Your task to perform on an android device: Clear the shopping cart on target. Search for bose soundsport free on target, select the first entry, and add it to the cart. Image 0: 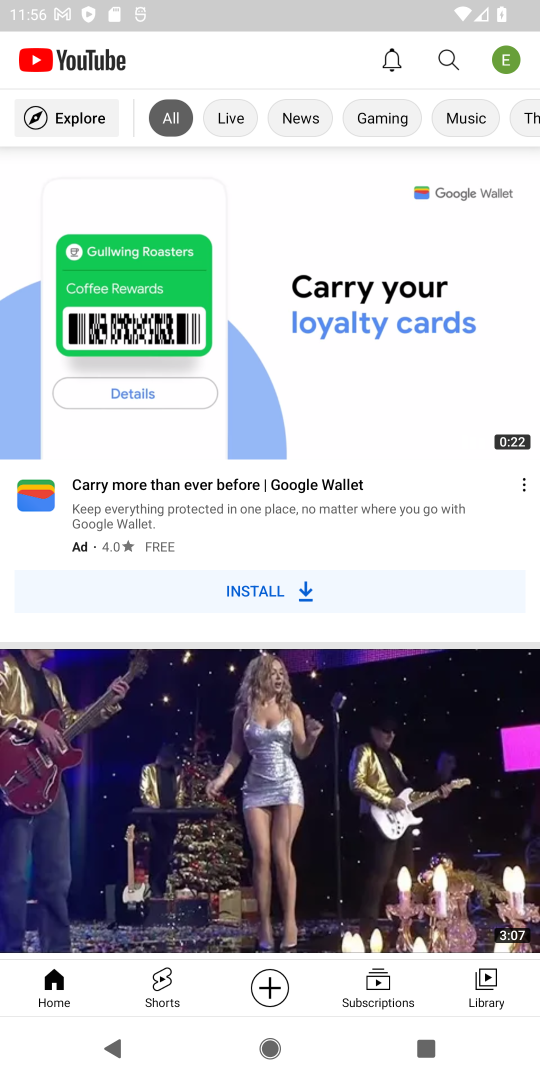
Step 0: press home button
Your task to perform on an android device: Clear the shopping cart on target. Search for bose soundsport free on target, select the first entry, and add it to the cart. Image 1: 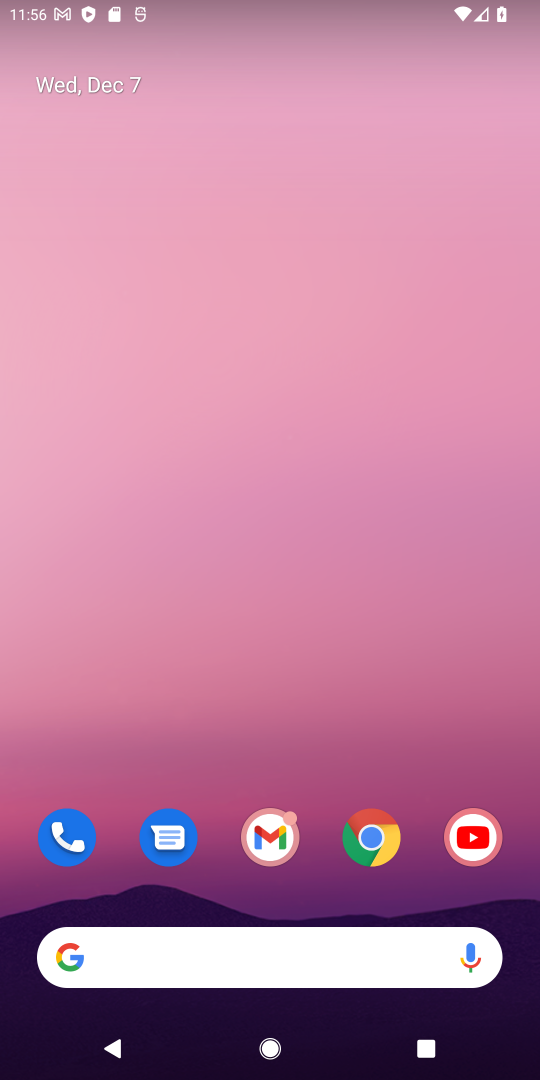
Step 1: click (364, 849)
Your task to perform on an android device: Clear the shopping cart on target. Search for bose soundsport free on target, select the first entry, and add it to the cart. Image 2: 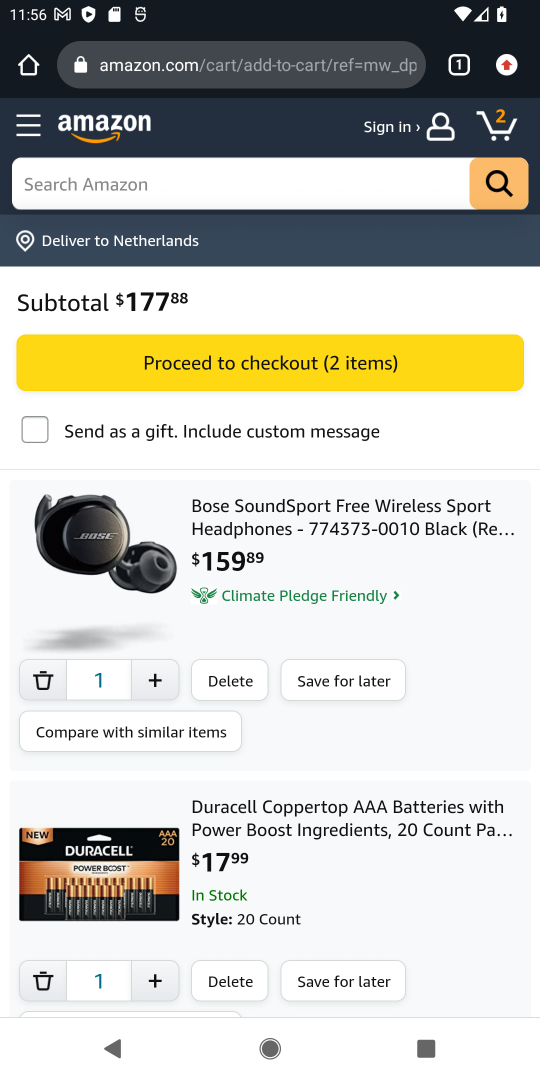
Step 2: click (212, 65)
Your task to perform on an android device: Clear the shopping cart on target. Search for bose soundsport free on target, select the first entry, and add it to the cart. Image 3: 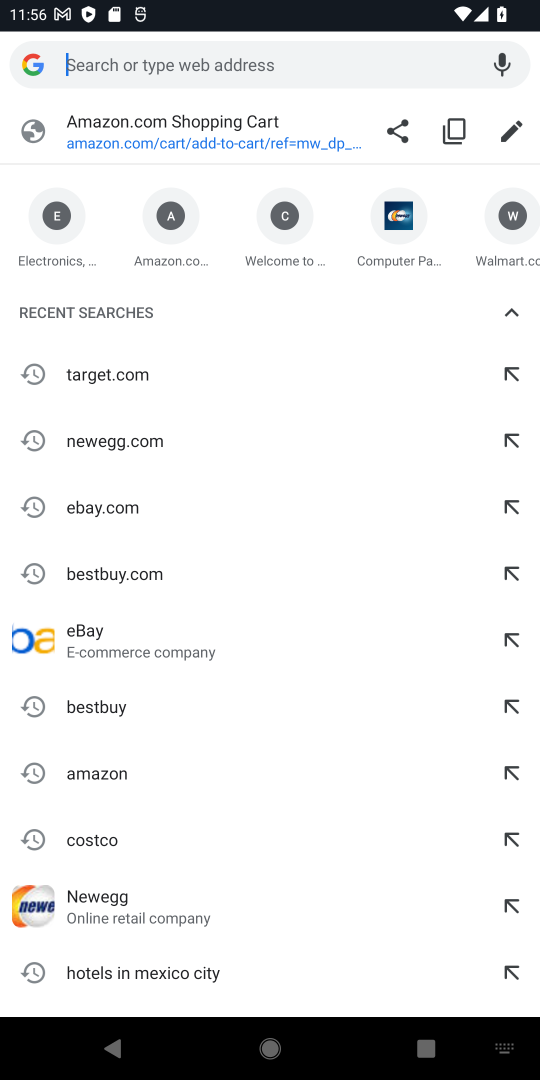
Step 3: type "target"
Your task to perform on an android device: Clear the shopping cart on target. Search for bose soundsport free on target, select the first entry, and add it to the cart. Image 4: 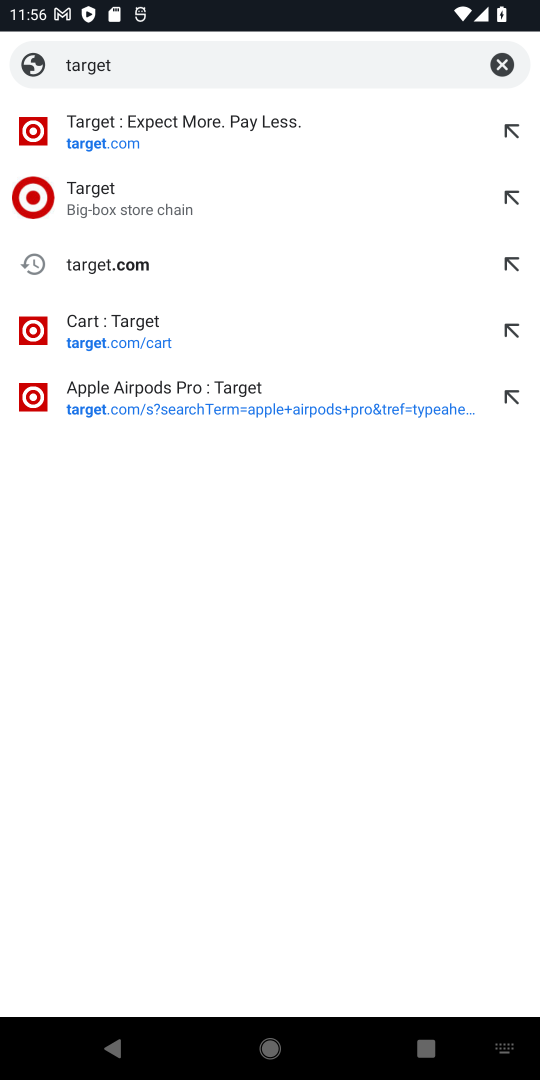
Step 4: click (151, 144)
Your task to perform on an android device: Clear the shopping cart on target. Search for bose soundsport free on target, select the first entry, and add it to the cart. Image 5: 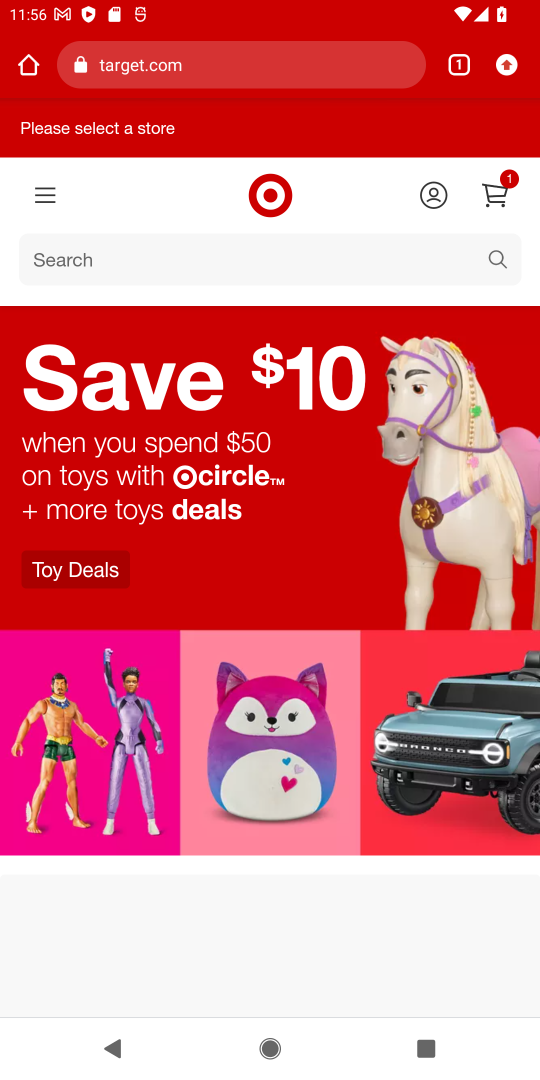
Step 5: click (503, 188)
Your task to perform on an android device: Clear the shopping cart on target. Search for bose soundsport free on target, select the first entry, and add it to the cart. Image 6: 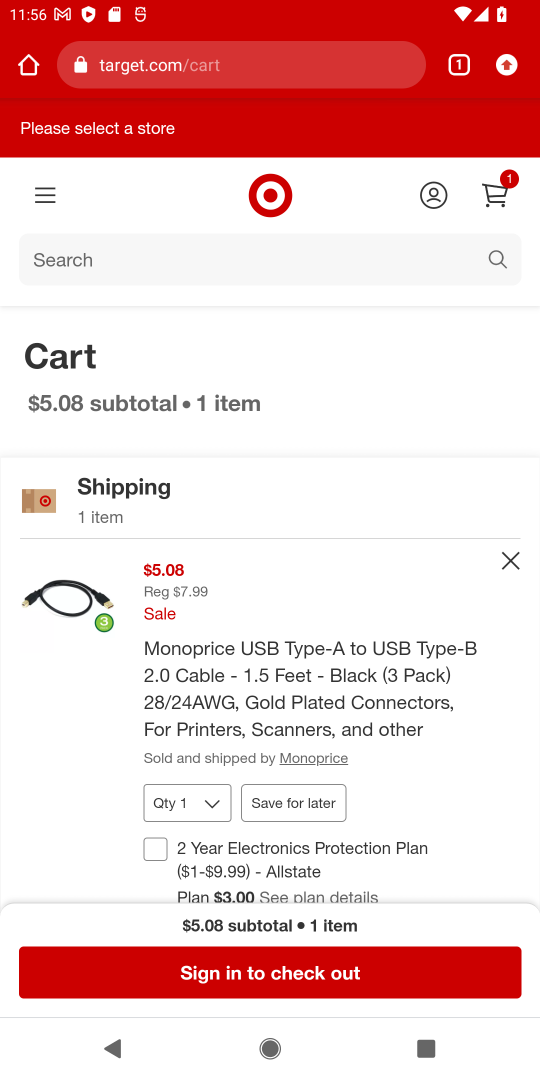
Step 6: click (505, 558)
Your task to perform on an android device: Clear the shopping cart on target. Search for bose soundsport free on target, select the first entry, and add it to the cart. Image 7: 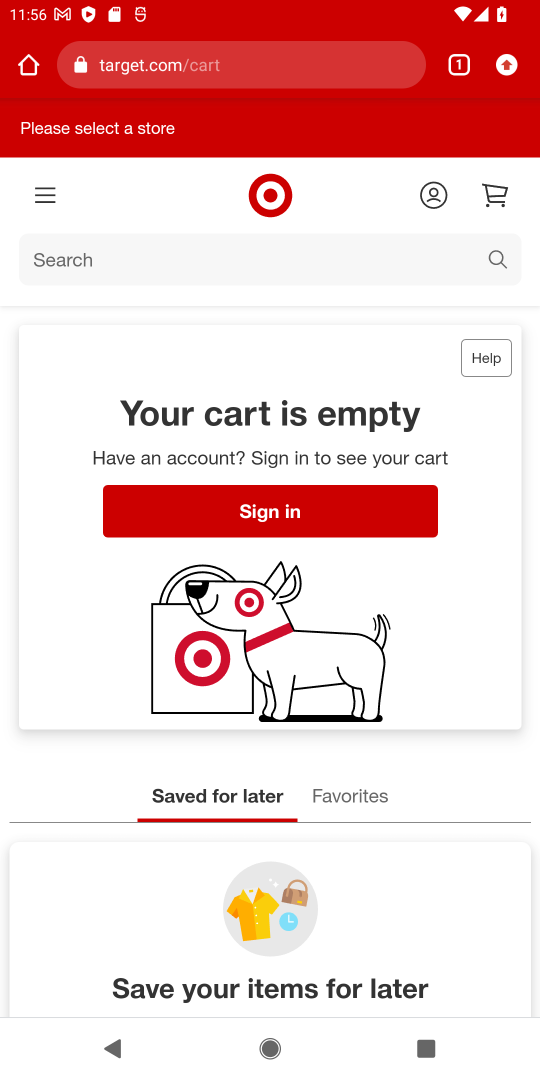
Step 7: click (173, 258)
Your task to perform on an android device: Clear the shopping cart on target. Search for bose soundsport free on target, select the first entry, and add it to the cart. Image 8: 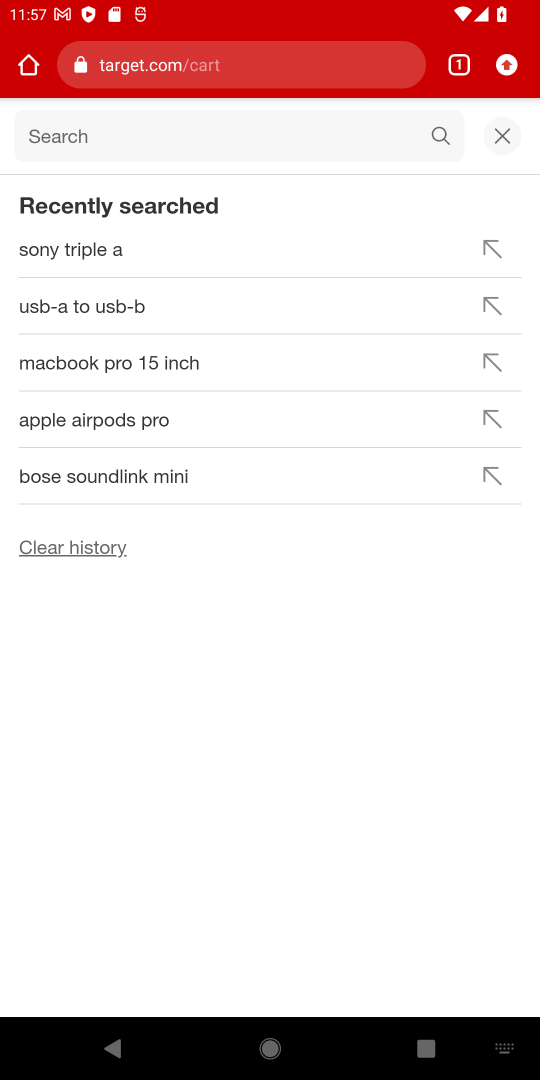
Step 8: type "bose soundsport free"
Your task to perform on an android device: Clear the shopping cart on target. Search for bose soundsport free on target, select the first entry, and add it to the cart. Image 9: 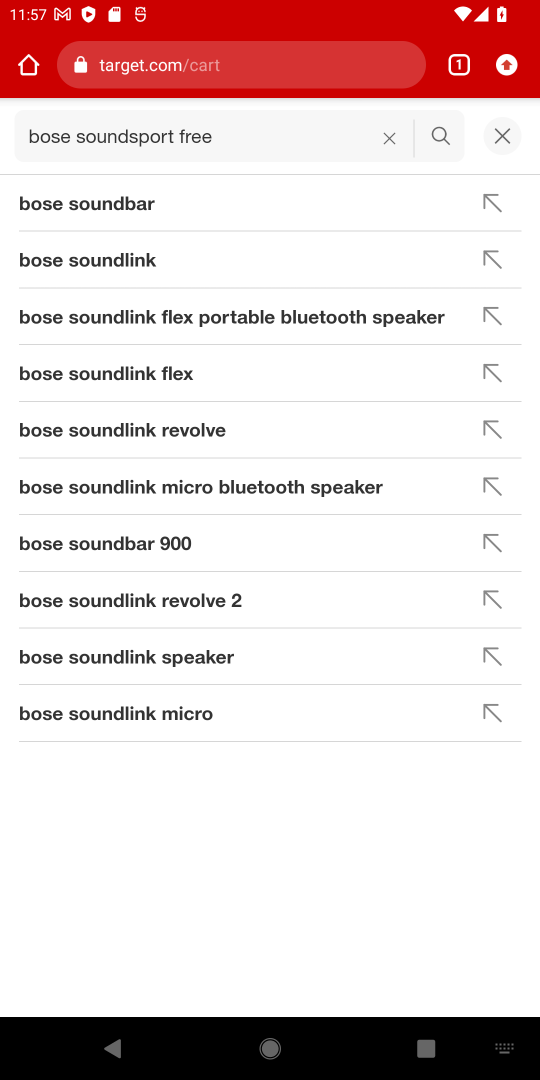
Step 9: press enter
Your task to perform on an android device: Clear the shopping cart on target. Search for bose soundsport free on target, select the first entry, and add it to the cart. Image 10: 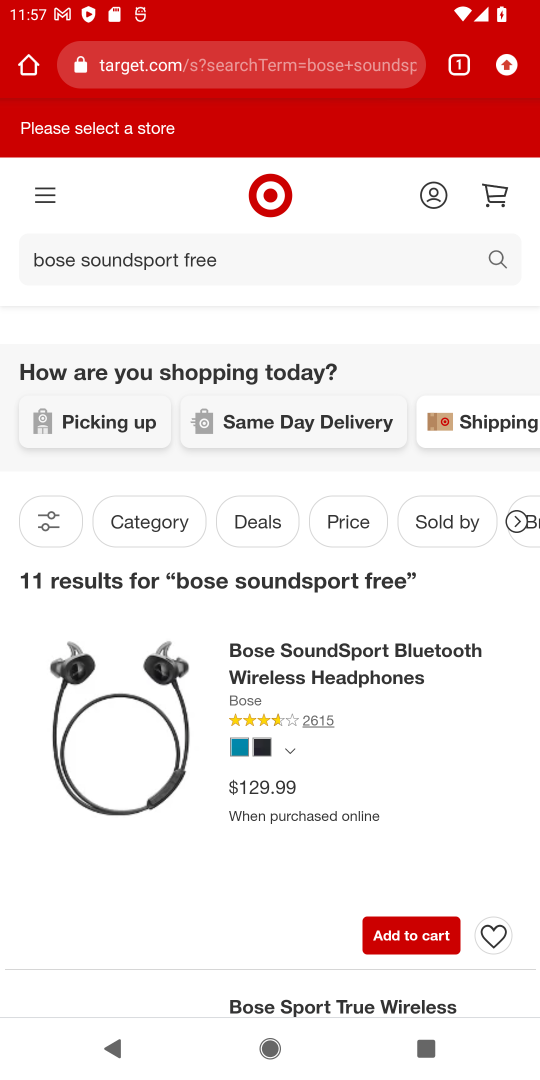
Step 10: click (402, 929)
Your task to perform on an android device: Clear the shopping cart on target. Search for bose soundsport free on target, select the first entry, and add it to the cart. Image 11: 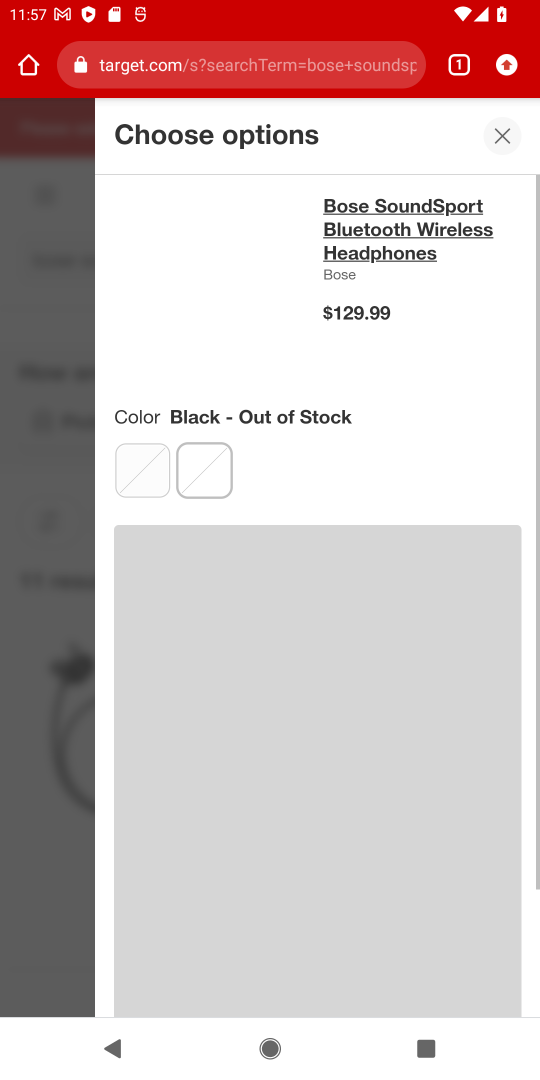
Step 11: click (139, 490)
Your task to perform on an android device: Clear the shopping cart on target. Search for bose soundsport free on target, select the first entry, and add it to the cart. Image 12: 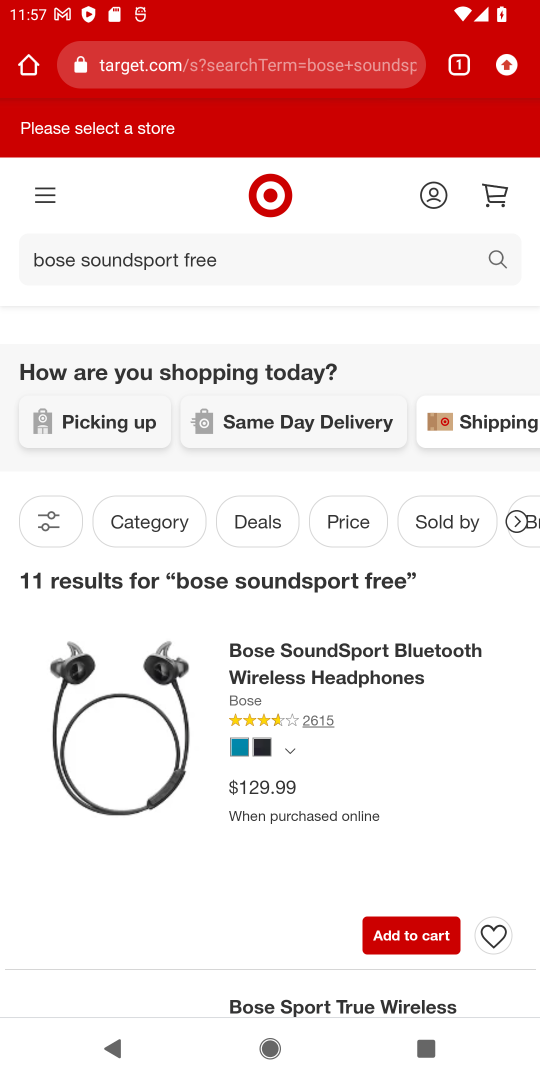
Step 12: click (401, 942)
Your task to perform on an android device: Clear the shopping cart on target. Search for bose soundsport free on target, select the first entry, and add it to the cart. Image 13: 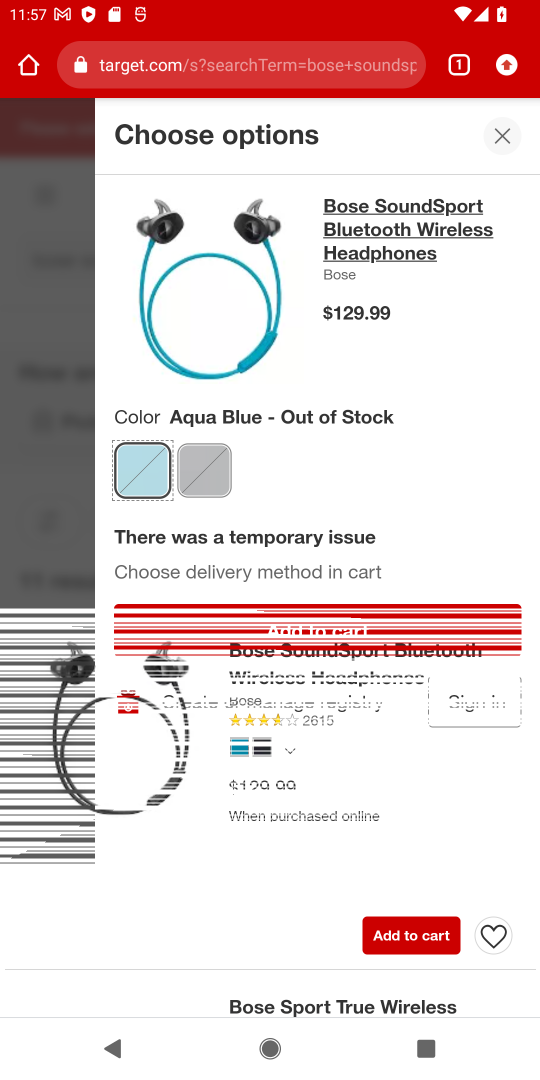
Step 13: click (401, 942)
Your task to perform on an android device: Clear the shopping cart on target. Search for bose soundsport free on target, select the first entry, and add it to the cart. Image 14: 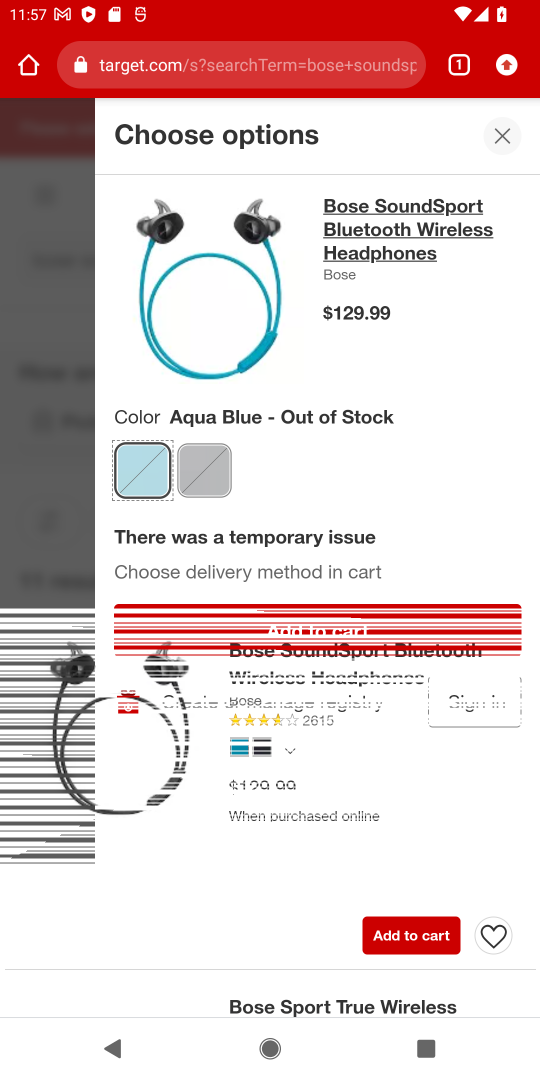
Step 14: click (348, 622)
Your task to perform on an android device: Clear the shopping cart on target. Search for bose soundsport free on target, select the first entry, and add it to the cart. Image 15: 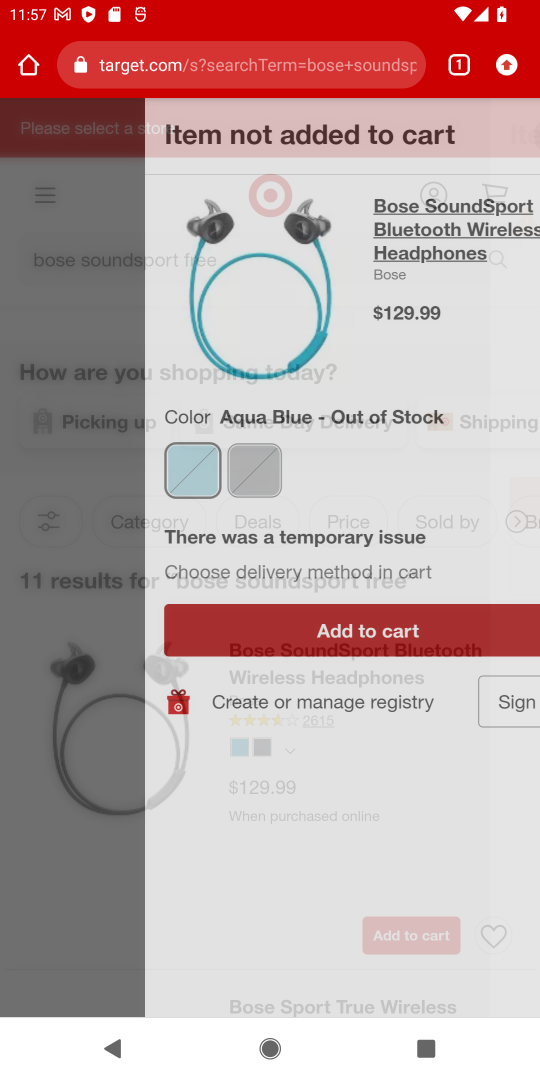
Step 15: click (346, 643)
Your task to perform on an android device: Clear the shopping cart on target. Search for bose soundsport free on target, select the first entry, and add it to the cart. Image 16: 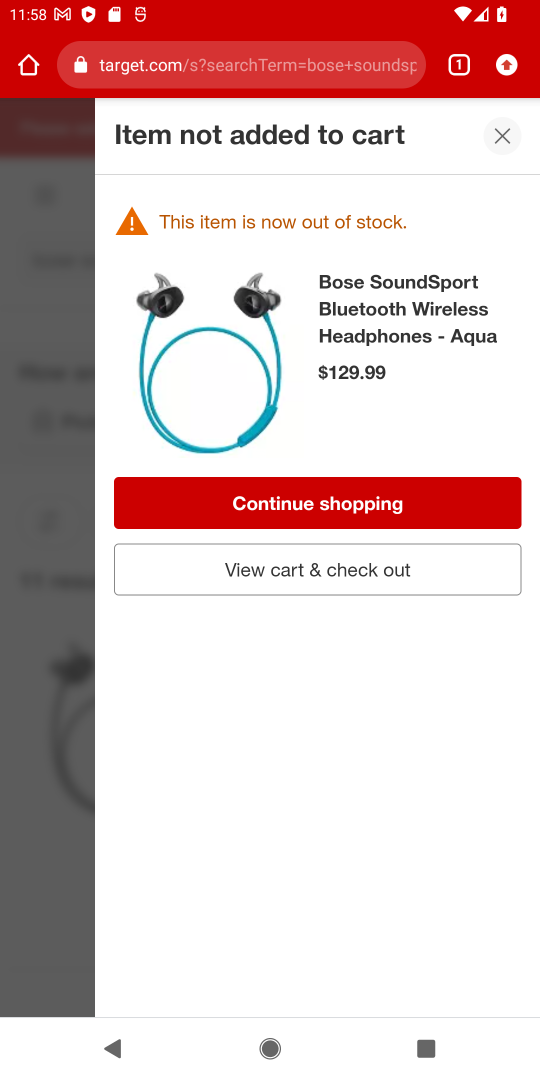
Step 16: click (337, 576)
Your task to perform on an android device: Clear the shopping cart on target. Search for bose soundsport free on target, select the first entry, and add it to the cart. Image 17: 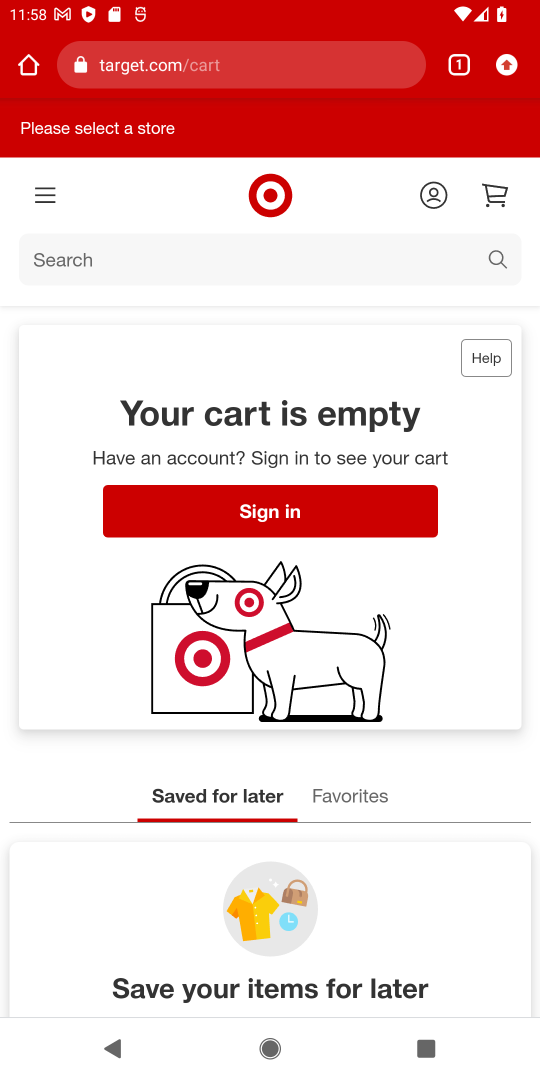
Step 17: drag from (371, 840) to (429, 403)
Your task to perform on an android device: Clear the shopping cart on target. Search for bose soundsport free on target, select the first entry, and add it to the cart. Image 18: 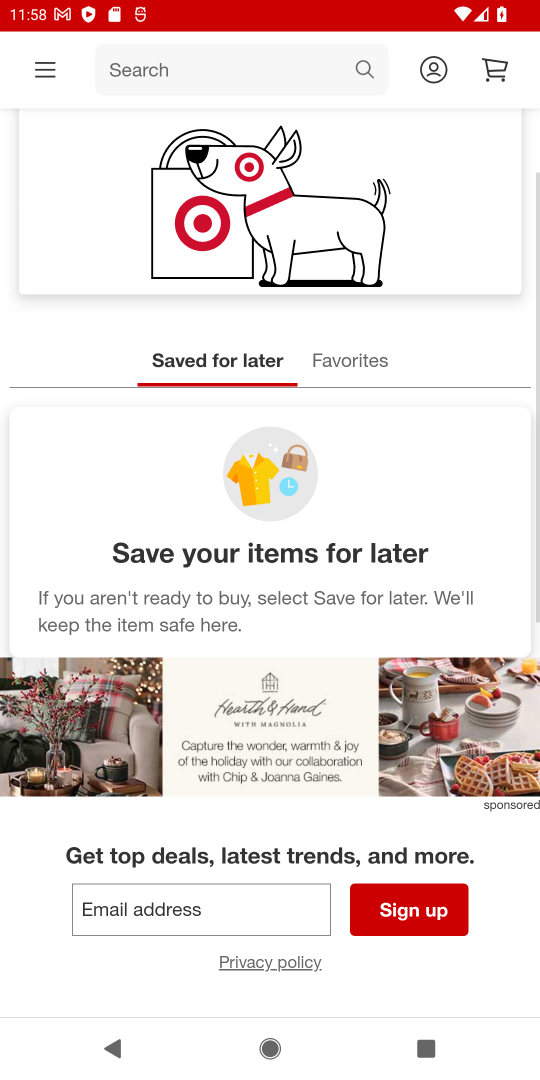
Step 18: drag from (407, 767) to (458, 1077)
Your task to perform on an android device: Clear the shopping cart on target. Search for bose soundsport free on target, select the first entry, and add it to the cart. Image 19: 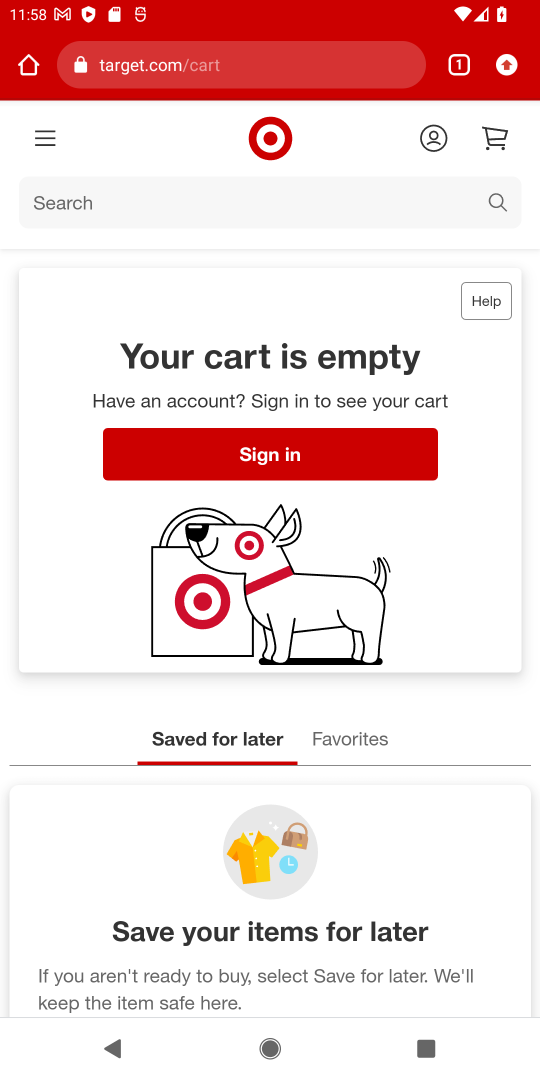
Step 19: press back button
Your task to perform on an android device: Clear the shopping cart on target. Search for bose soundsport free on target, select the first entry, and add it to the cart. Image 20: 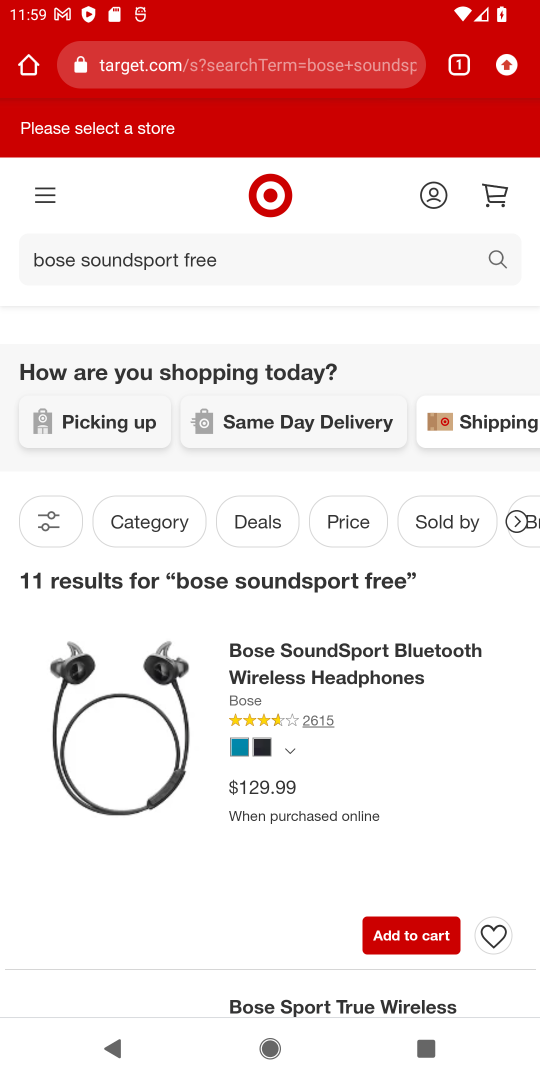
Step 20: click (425, 937)
Your task to perform on an android device: Clear the shopping cart on target. Search for bose soundsport free on target, select the first entry, and add it to the cart. Image 21: 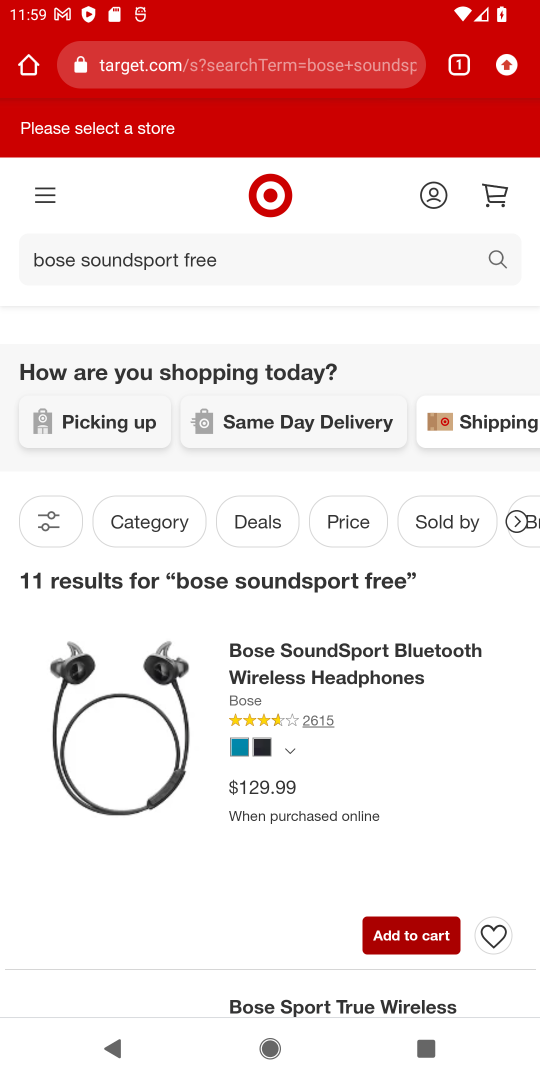
Step 21: click (425, 937)
Your task to perform on an android device: Clear the shopping cart on target. Search for bose soundsport free on target, select the first entry, and add it to the cart. Image 22: 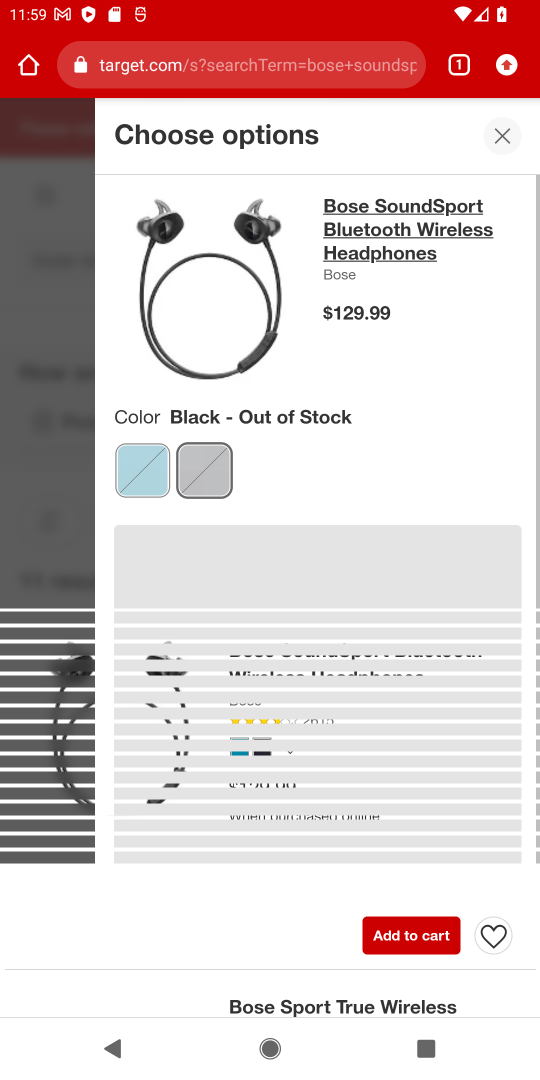
Step 22: click (150, 466)
Your task to perform on an android device: Clear the shopping cart on target. Search for bose soundsport free on target, select the first entry, and add it to the cart. Image 23: 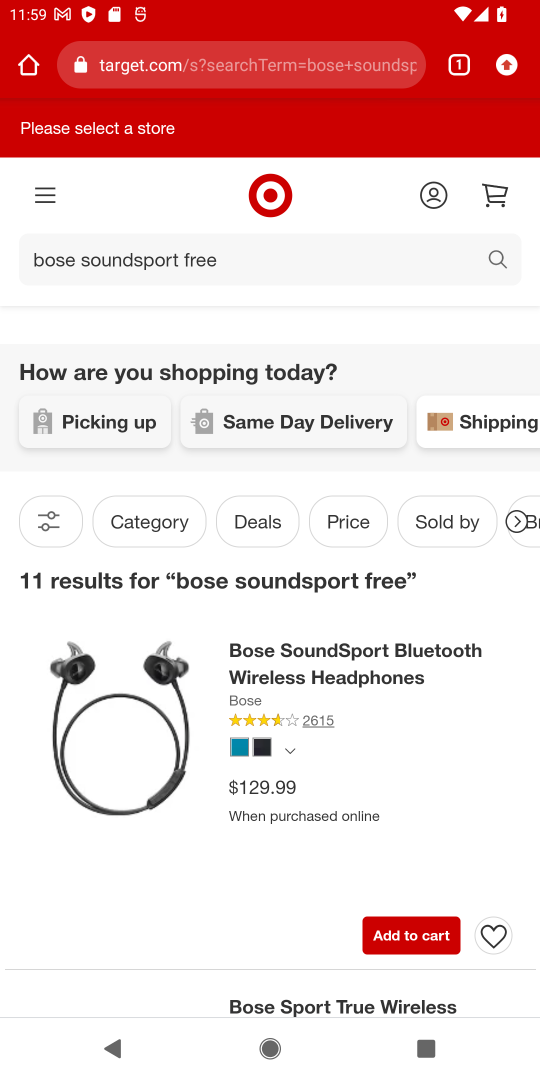
Step 23: click (239, 753)
Your task to perform on an android device: Clear the shopping cart on target. Search for bose soundsport free on target, select the first entry, and add it to the cart. Image 24: 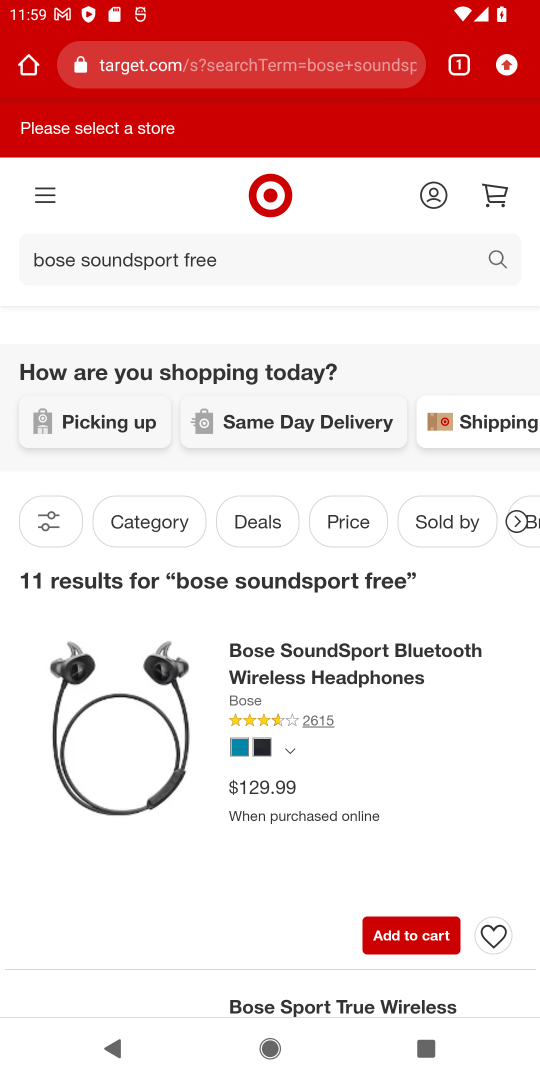
Step 24: task complete